Your task to perform on an android device: toggle location history Image 0: 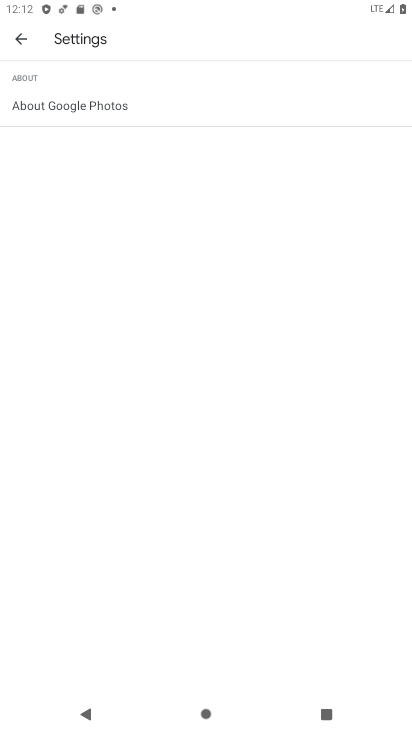
Step 0: press home button
Your task to perform on an android device: toggle location history Image 1: 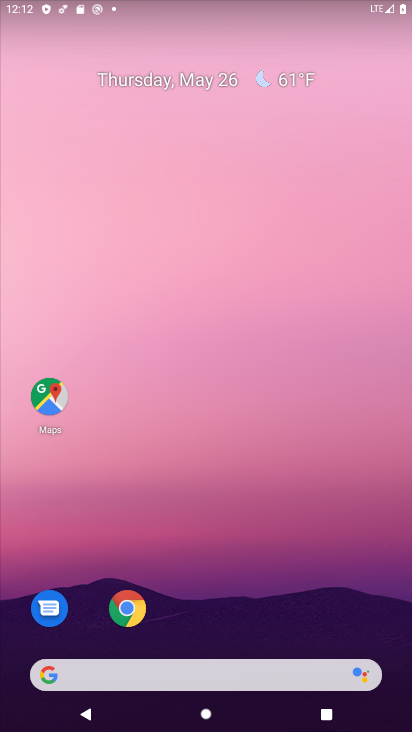
Step 1: click (55, 399)
Your task to perform on an android device: toggle location history Image 2: 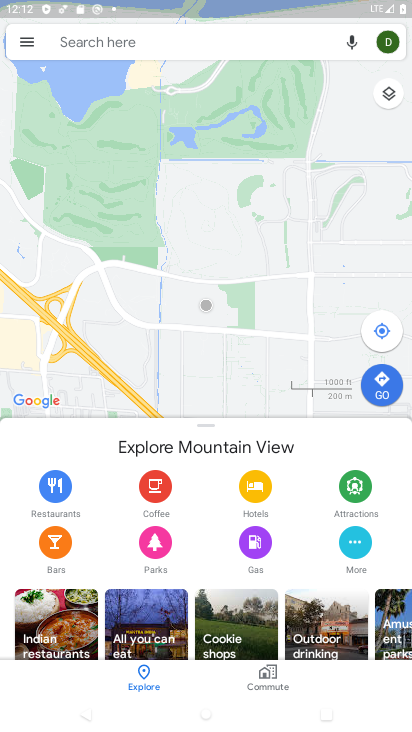
Step 2: click (28, 42)
Your task to perform on an android device: toggle location history Image 3: 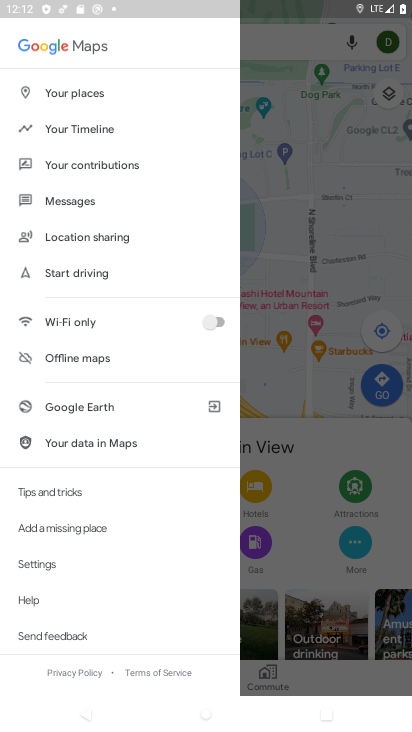
Step 3: click (39, 569)
Your task to perform on an android device: toggle location history Image 4: 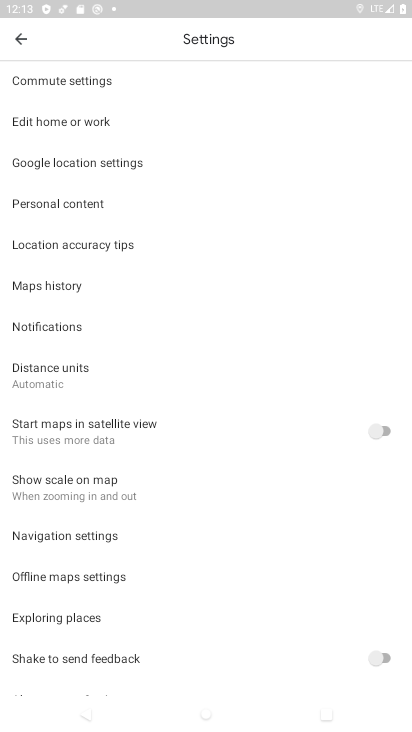
Step 4: click (57, 202)
Your task to perform on an android device: toggle location history Image 5: 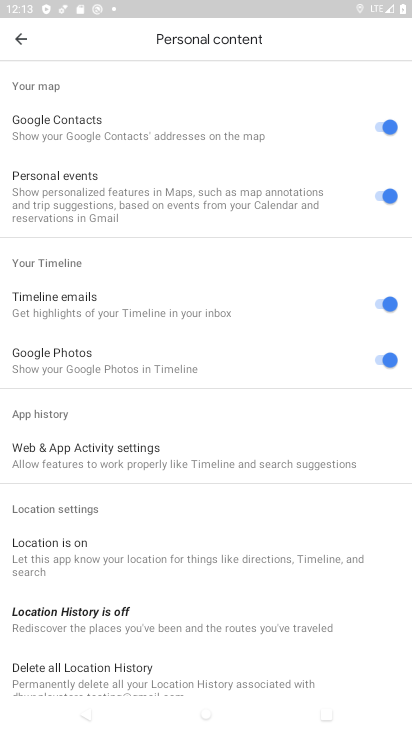
Step 5: click (94, 615)
Your task to perform on an android device: toggle location history Image 6: 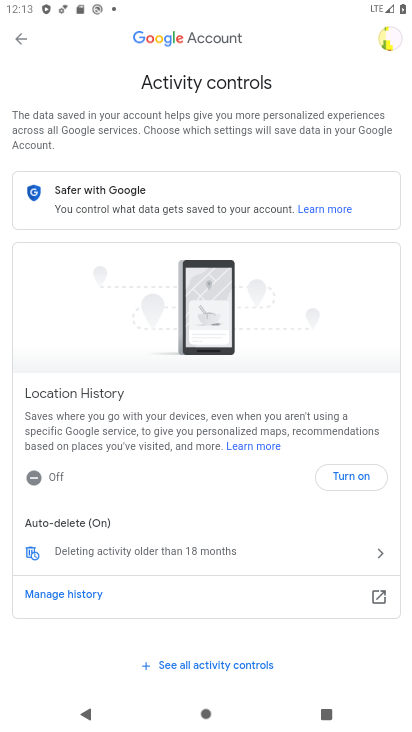
Step 6: click (348, 475)
Your task to perform on an android device: toggle location history Image 7: 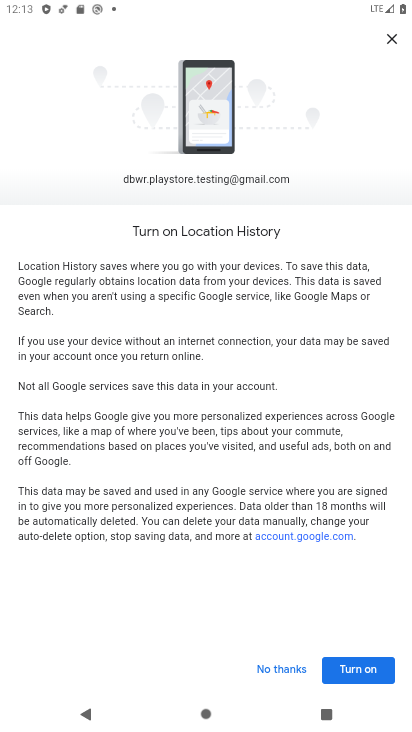
Step 7: click (354, 669)
Your task to perform on an android device: toggle location history Image 8: 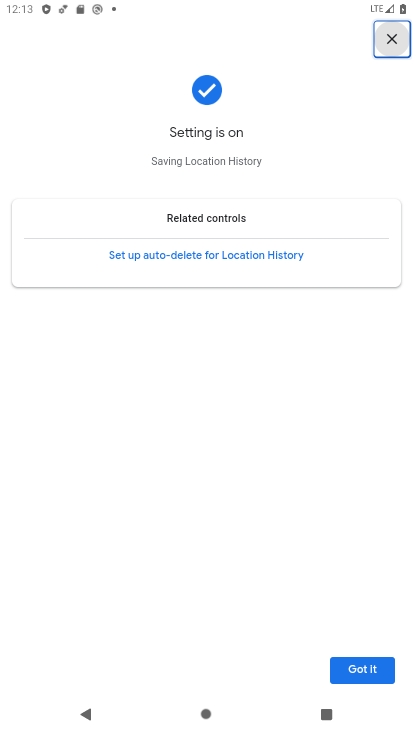
Step 8: click (361, 674)
Your task to perform on an android device: toggle location history Image 9: 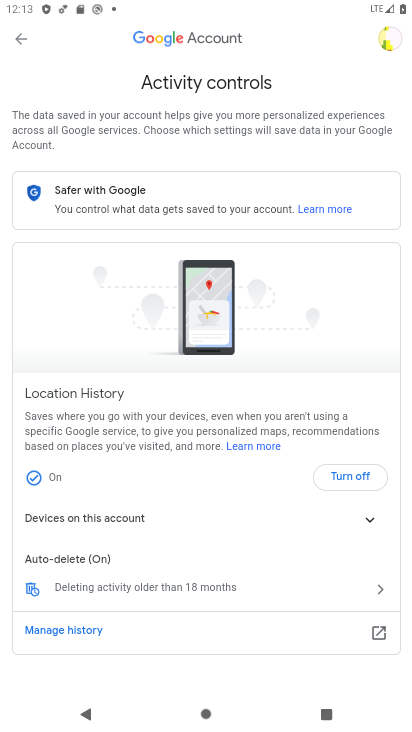
Step 9: task complete